Your task to perform on an android device: Search for "logitech g pro" on amazon.com, select the first entry, add it to the cart, then select checkout. Image 0: 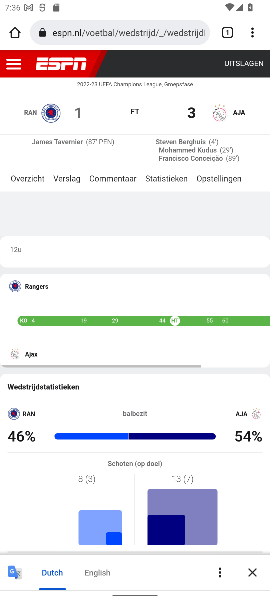
Step 0: press home button
Your task to perform on an android device: Search for "logitech g pro" on amazon.com, select the first entry, add it to the cart, then select checkout. Image 1: 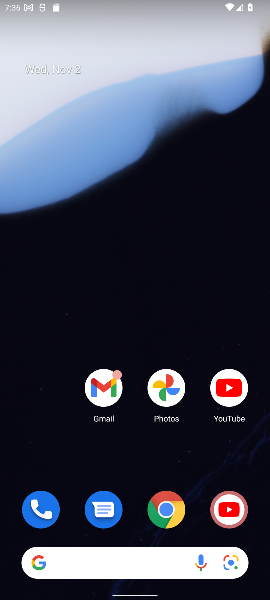
Step 1: click (110, 561)
Your task to perform on an android device: Search for "logitech g pro" on amazon.com, select the first entry, add it to the cart, then select checkout. Image 2: 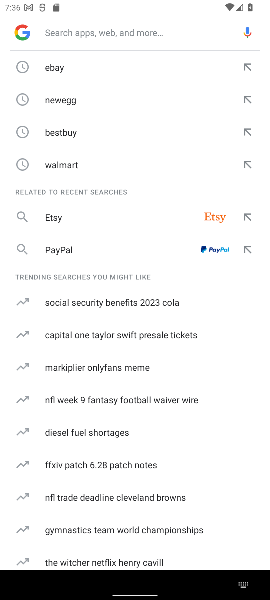
Step 2: type "amazon.com"
Your task to perform on an android device: Search for "logitech g pro" on amazon.com, select the first entry, add it to the cart, then select checkout. Image 3: 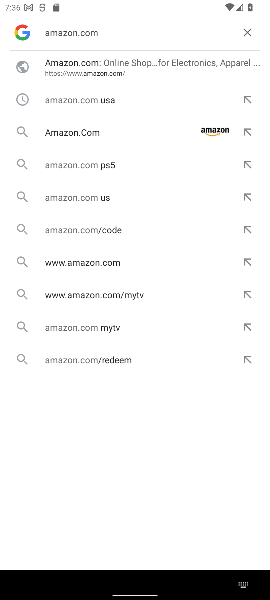
Step 3: click (79, 135)
Your task to perform on an android device: Search for "logitech g pro" on amazon.com, select the first entry, add it to the cart, then select checkout. Image 4: 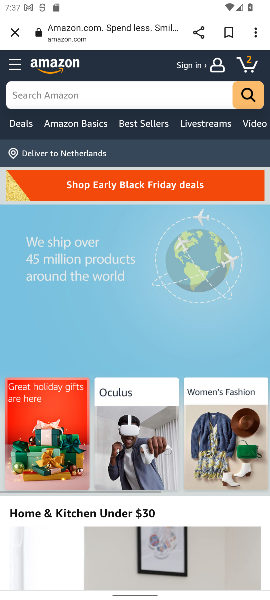
Step 4: click (78, 89)
Your task to perform on an android device: Search for "logitech g pro" on amazon.com, select the first entry, add it to the cart, then select checkout. Image 5: 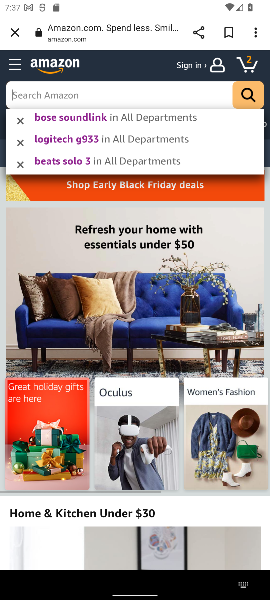
Step 5: type "logitech g pro"
Your task to perform on an android device: Search for "logitech g pro" on amazon.com, select the first entry, add it to the cart, then select checkout. Image 6: 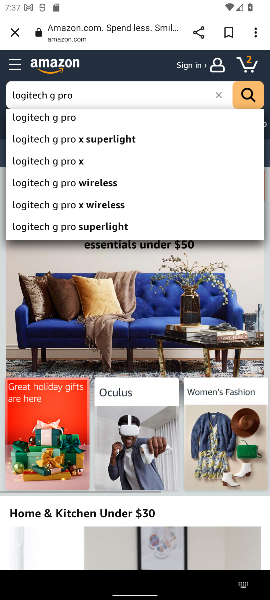
Step 6: click (63, 119)
Your task to perform on an android device: Search for "logitech g pro" on amazon.com, select the first entry, add it to the cart, then select checkout. Image 7: 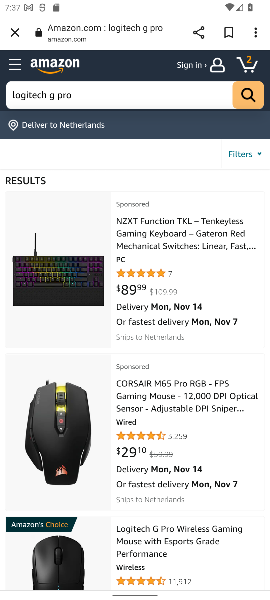
Step 7: click (163, 232)
Your task to perform on an android device: Search for "logitech g pro" on amazon.com, select the first entry, add it to the cart, then select checkout. Image 8: 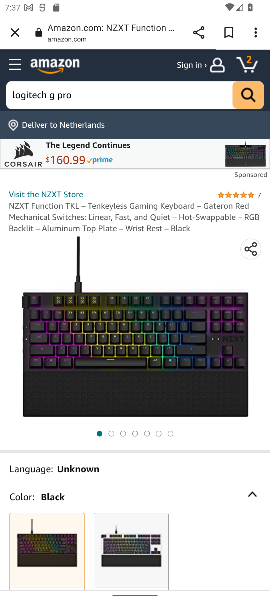
Step 8: drag from (180, 441) to (165, 246)
Your task to perform on an android device: Search for "logitech g pro" on amazon.com, select the first entry, add it to the cart, then select checkout. Image 9: 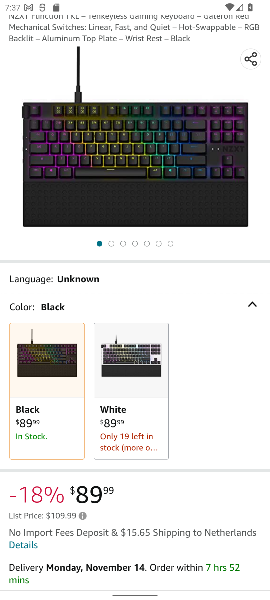
Step 9: drag from (216, 421) to (193, 222)
Your task to perform on an android device: Search for "logitech g pro" on amazon.com, select the first entry, add it to the cart, then select checkout. Image 10: 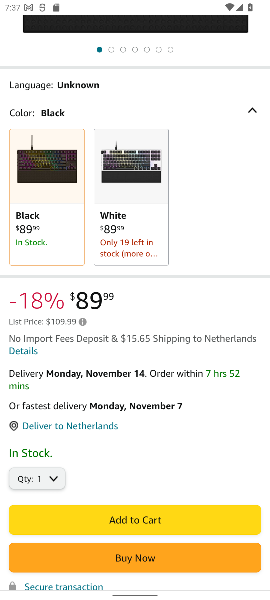
Step 10: click (147, 519)
Your task to perform on an android device: Search for "logitech g pro" on amazon.com, select the first entry, add it to the cart, then select checkout. Image 11: 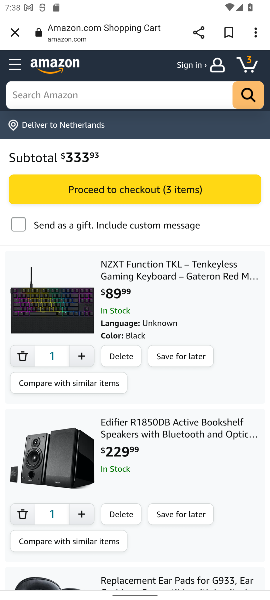
Step 11: click (129, 187)
Your task to perform on an android device: Search for "logitech g pro" on amazon.com, select the first entry, add it to the cart, then select checkout. Image 12: 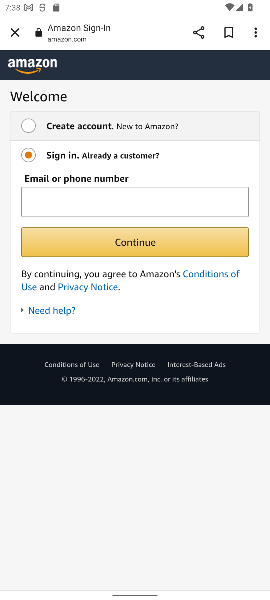
Step 12: task complete